Your task to perform on an android device: delete browsing data in the chrome app Image 0: 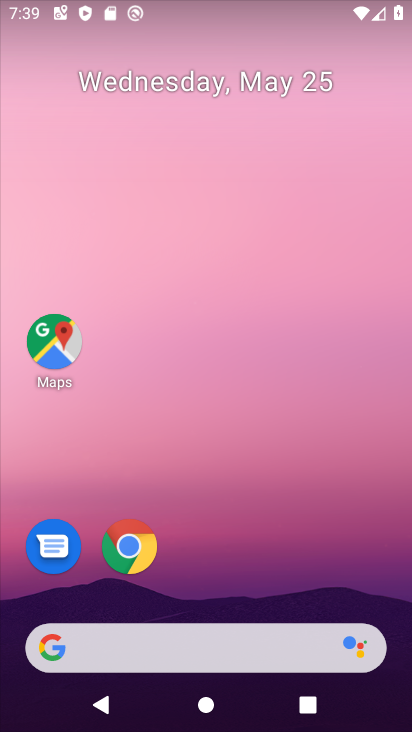
Step 0: click (126, 556)
Your task to perform on an android device: delete browsing data in the chrome app Image 1: 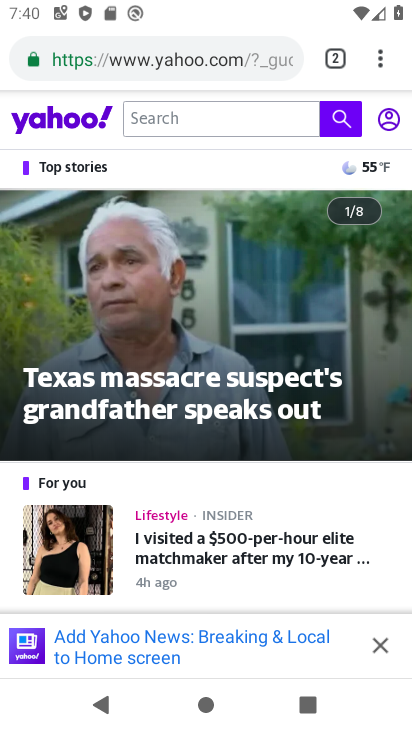
Step 1: drag from (380, 61) to (237, 594)
Your task to perform on an android device: delete browsing data in the chrome app Image 2: 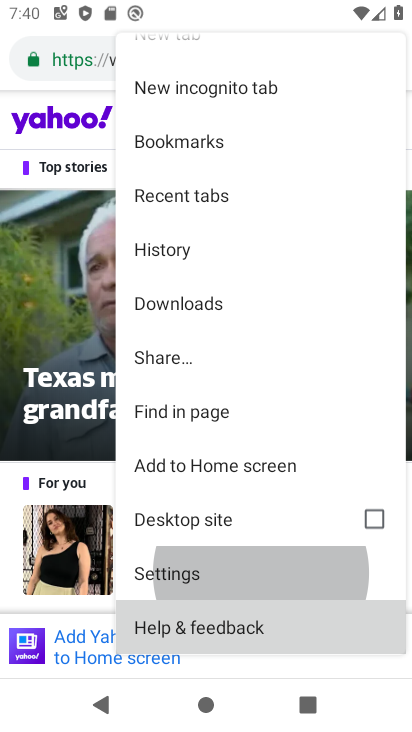
Step 2: click (231, 565)
Your task to perform on an android device: delete browsing data in the chrome app Image 3: 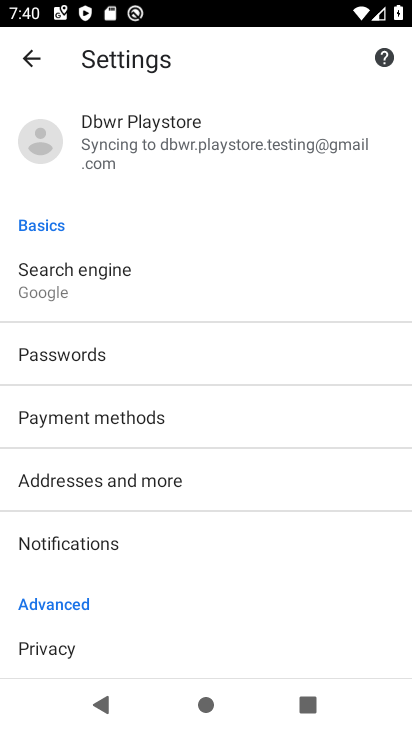
Step 3: drag from (265, 613) to (358, 168)
Your task to perform on an android device: delete browsing data in the chrome app Image 4: 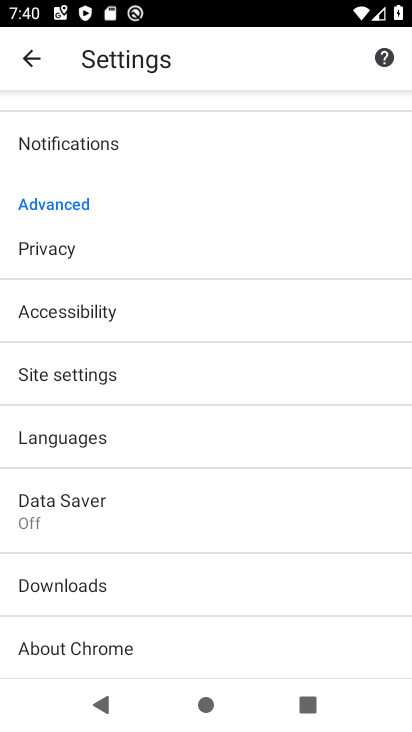
Step 4: click (59, 237)
Your task to perform on an android device: delete browsing data in the chrome app Image 5: 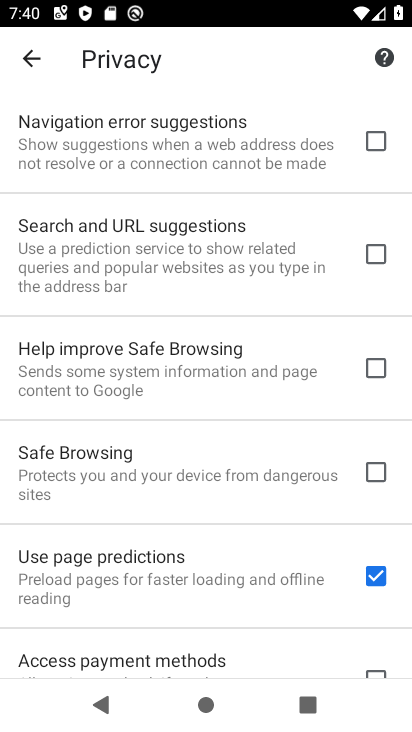
Step 5: drag from (241, 637) to (409, 179)
Your task to perform on an android device: delete browsing data in the chrome app Image 6: 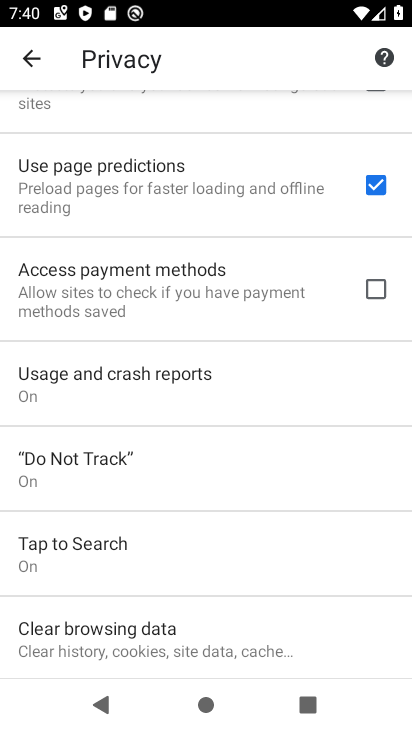
Step 6: click (192, 636)
Your task to perform on an android device: delete browsing data in the chrome app Image 7: 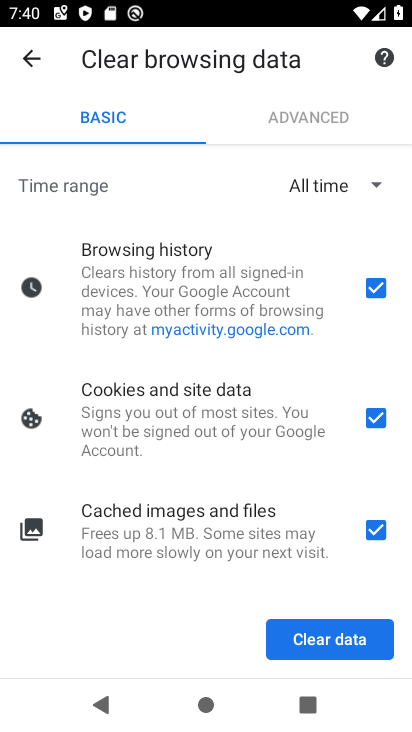
Step 7: click (340, 648)
Your task to perform on an android device: delete browsing data in the chrome app Image 8: 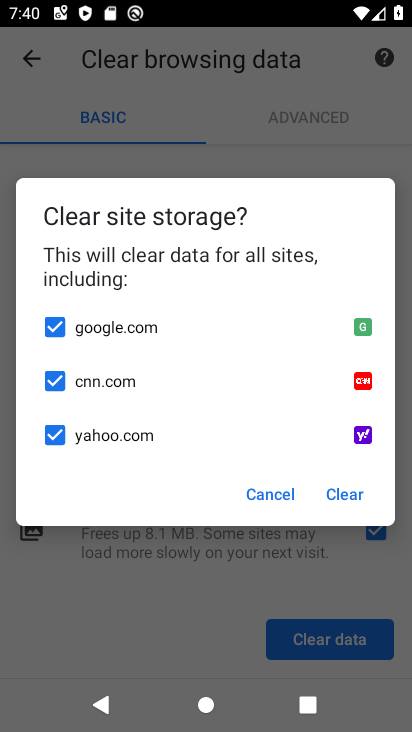
Step 8: click (338, 492)
Your task to perform on an android device: delete browsing data in the chrome app Image 9: 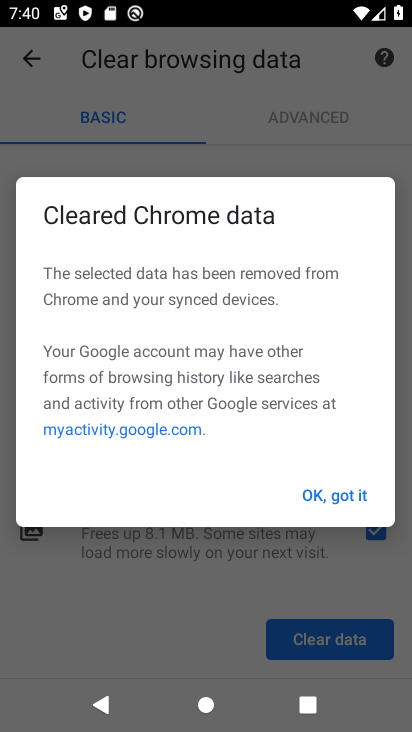
Step 9: click (338, 492)
Your task to perform on an android device: delete browsing data in the chrome app Image 10: 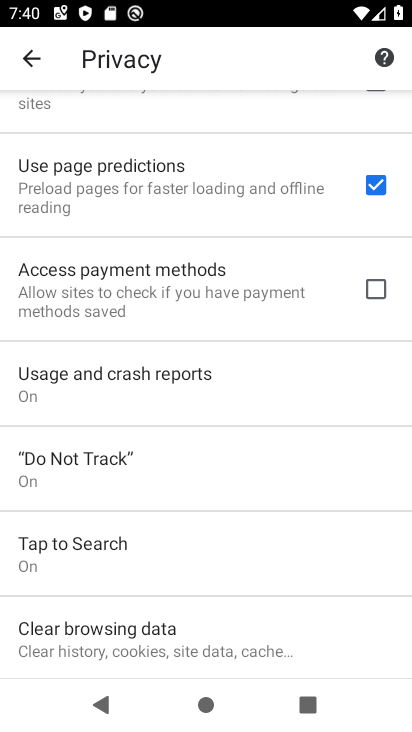
Step 10: task complete